Your task to perform on an android device: Show me popular videos on Youtube Image 0: 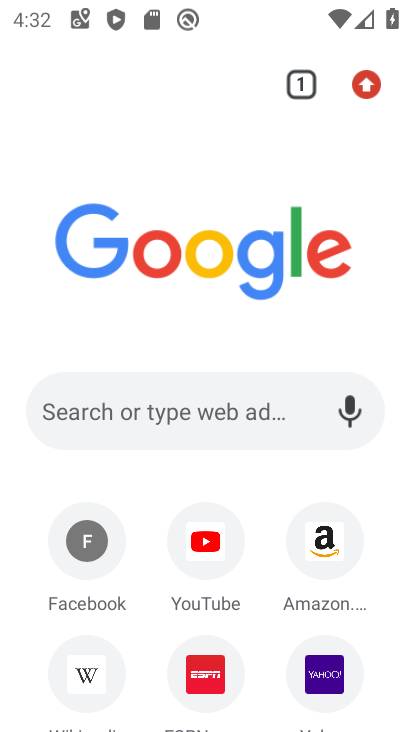
Step 0: click (206, 524)
Your task to perform on an android device: Show me popular videos on Youtube Image 1: 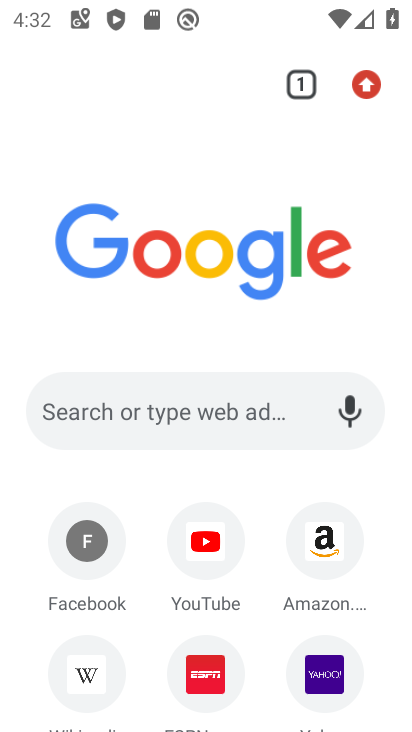
Step 1: click (201, 546)
Your task to perform on an android device: Show me popular videos on Youtube Image 2: 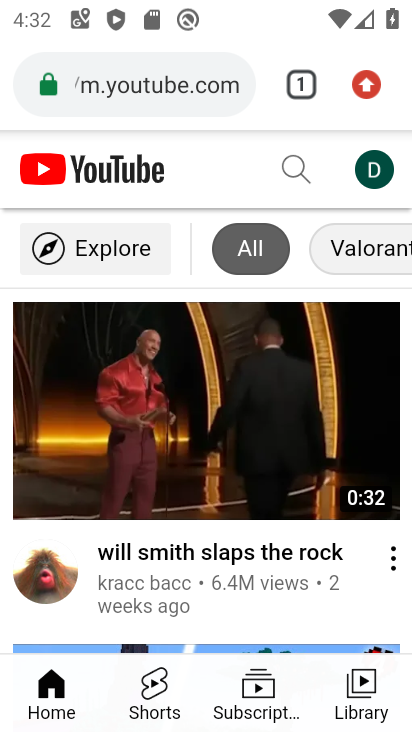
Step 2: drag from (214, 562) to (244, 260)
Your task to perform on an android device: Show me popular videos on Youtube Image 3: 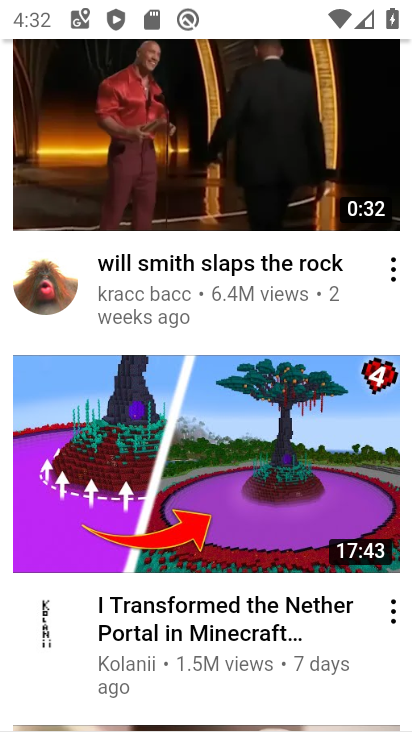
Step 3: drag from (246, 274) to (265, 429)
Your task to perform on an android device: Show me popular videos on Youtube Image 4: 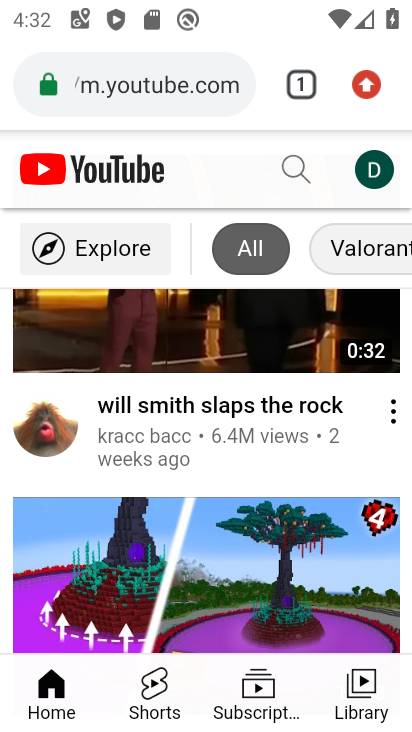
Step 4: click (299, 174)
Your task to perform on an android device: Show me popular videos on Youtube Image 5: 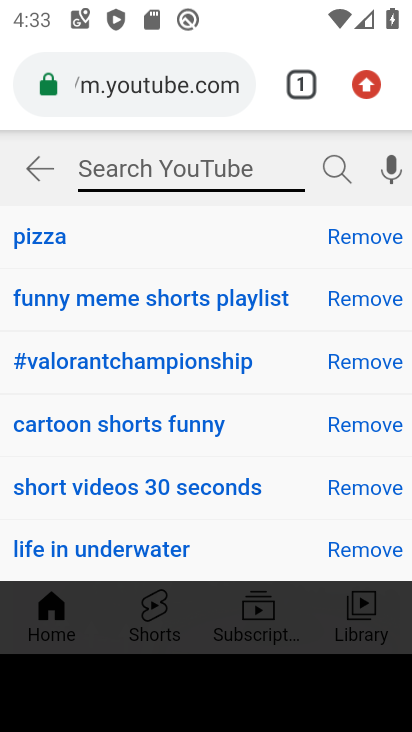
Step 5: type "populare videos"
Your task to perform on an android device: Show me popular videos on Youtube Image 6: 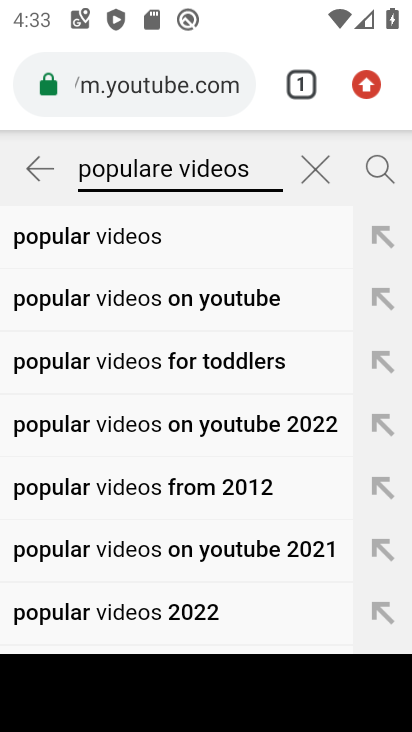
Step 6: click (205, 243)
Your task to perform on an android device: Show me popular videos on Youtube Image 7: 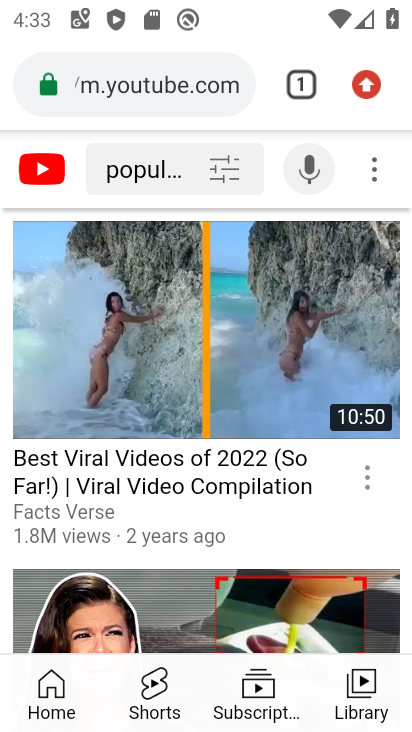
Step 7: task complete